Your task to perform on an android device: delete a single message in the gmail app Image 0: 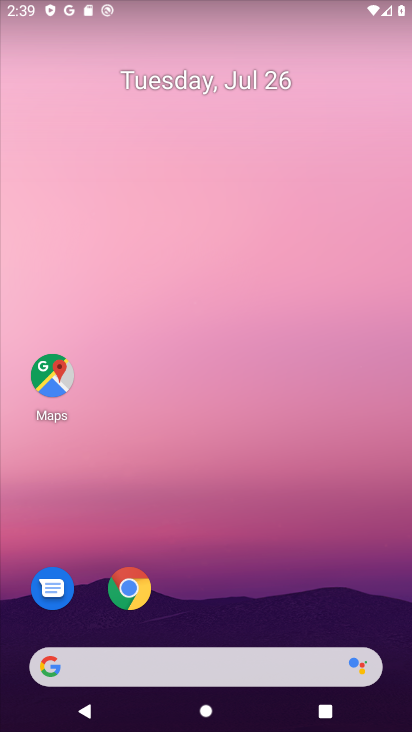
Step 0: drag from (224, 602) to (129, 73)
Your task to perform on an android device: delete a single message in the gmail app Image 1: 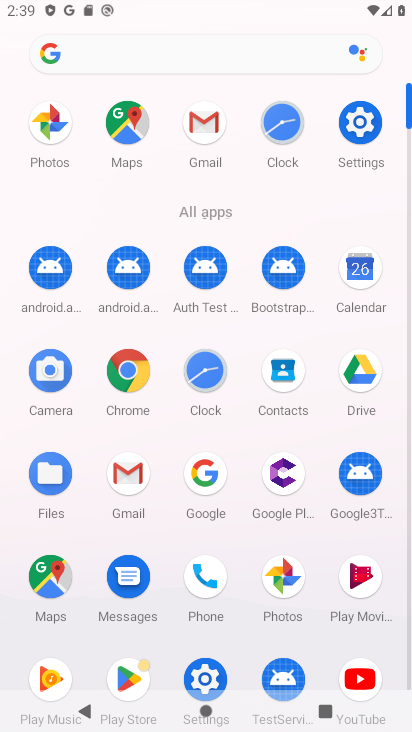
Step 1: click (199, 138)
Your task to perform on an android device: delete a single message in the gmail app Image 2: 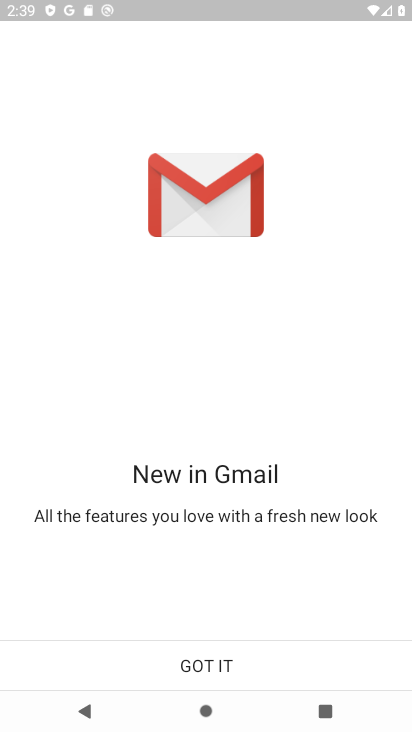
Step 2: click (216, 662)
Your task to perform on an android device: delete a single message in the gmail app Image 3: 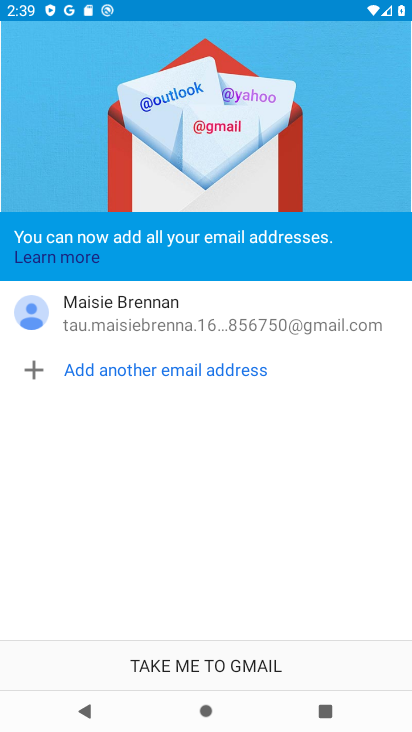
Step 3: click (216, 662)
Your task to perform on an android device: delete a single message in the gmail app Image 4: 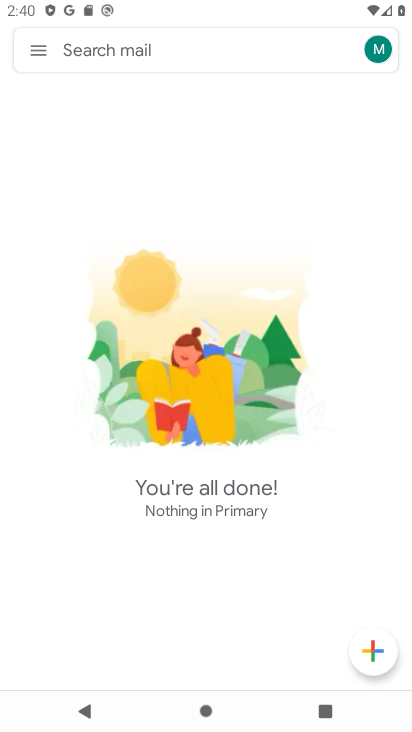
Step 4: click (43, 61)
Your task to perform on an android device: delete a single message in the gmail app Image 5: 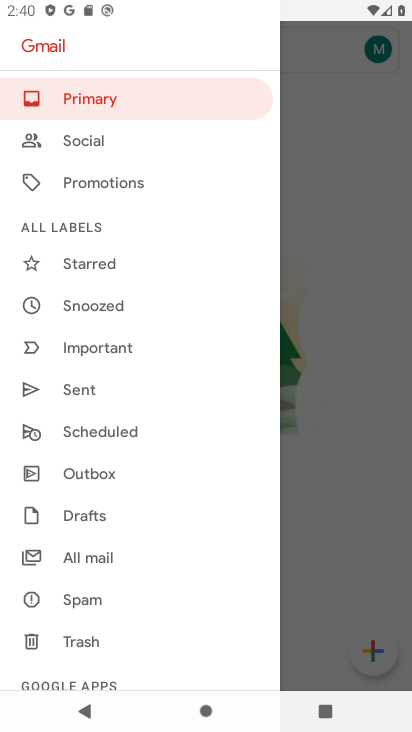
Step 5: drag from (156, 634) to (131, 356)
Your task to perform on an android device: delete a single message in the gmail app Image 6: 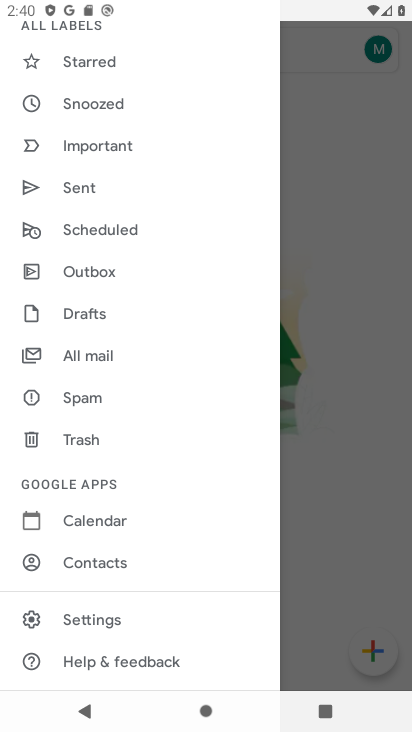
Step 6: click (108, 362)
Your task to perform on an android device: delete a single message in the gmail app Image 7: 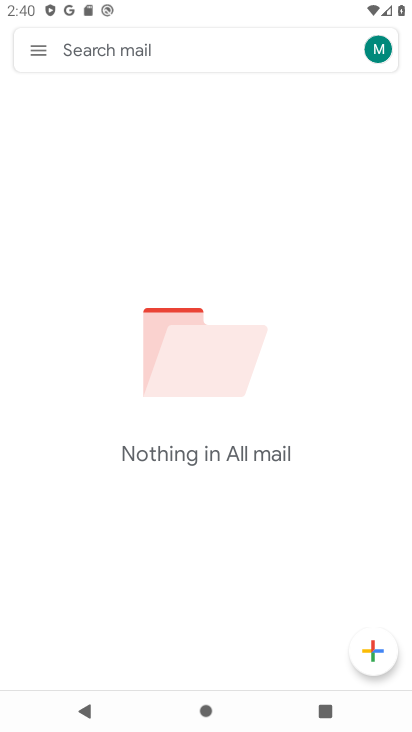
Step 7: task complete